Your task to perform on an android device: set the stopwatch Image 0: 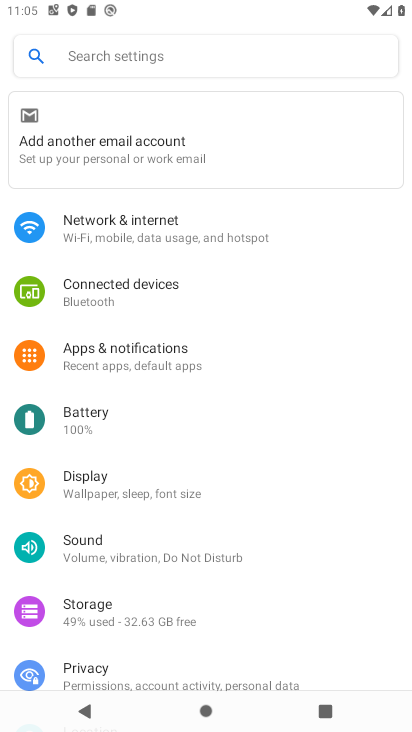
Step 0: press home button
Your task to perform on an android device: set the stopwatch Image 1: 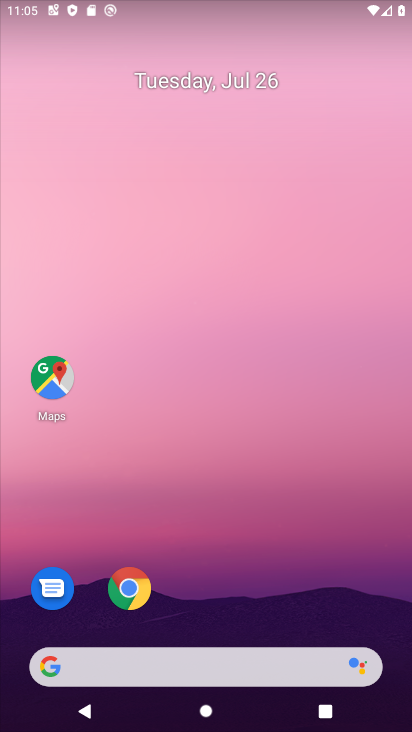
Step 1: drag from (256, 405) to (249, 43)
Your task to perform on an android device: set the stopwatch Image 2: 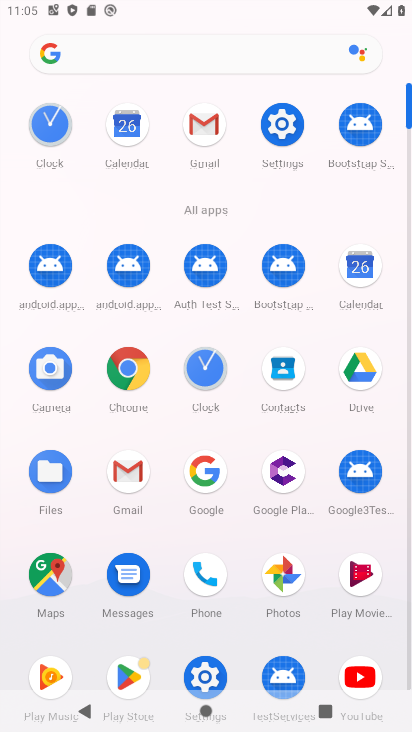
Step 2: click (210, 367)
Your task to perform on an android device: set the stopwatch Image 3: 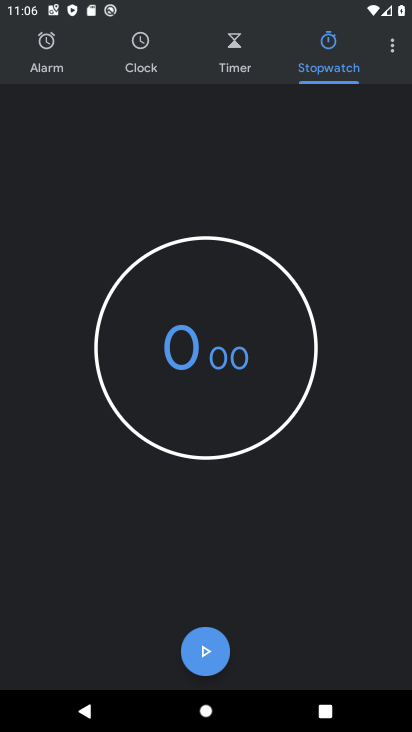
Step 3: task complete